Your task to perform on an android device: change the clock display to analog Image 0: 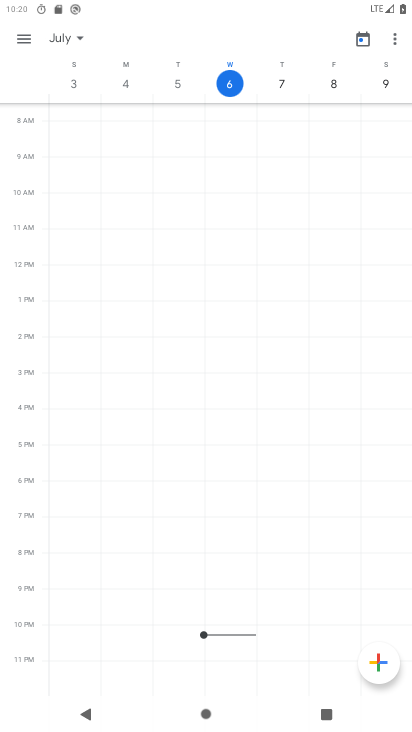
Step 0: press home button
Your task to perform on an android device: change the clock display to analog Image 1: 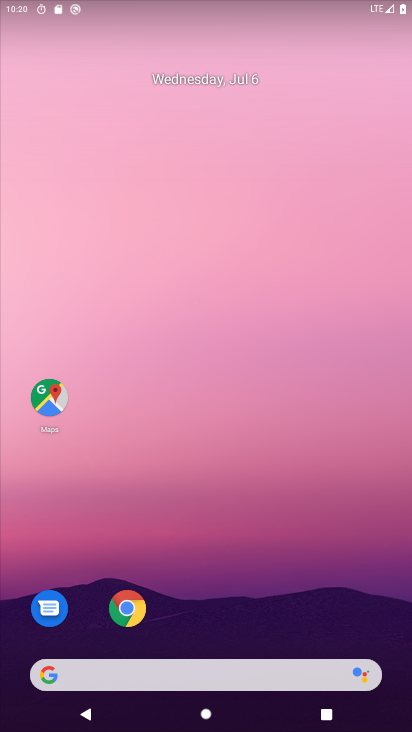
Step 1: drag from (206, 629) to (161, 2)
Your task to perform on an android device: change the clock display to analog Image 2: 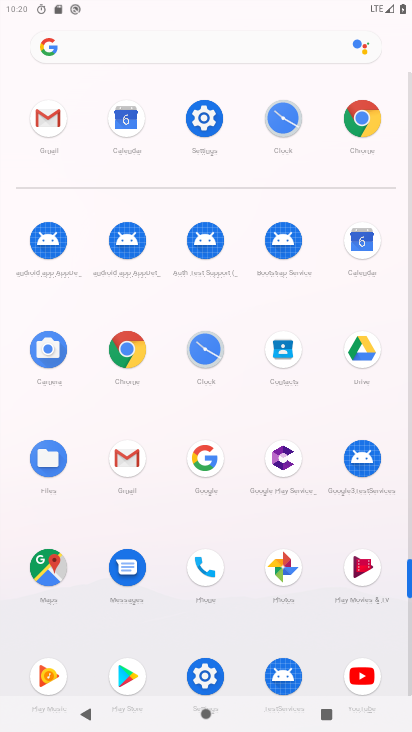
Step 2: click (193, 351)
Your task to perform on an android device: change the clock display to analog Image 3: 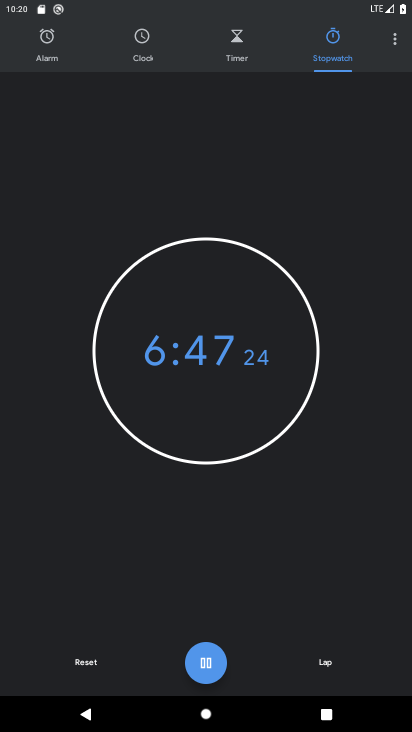
Step 3: click (85, 656)
Your task to perform on an android device: change the clock display to analog Image 4: 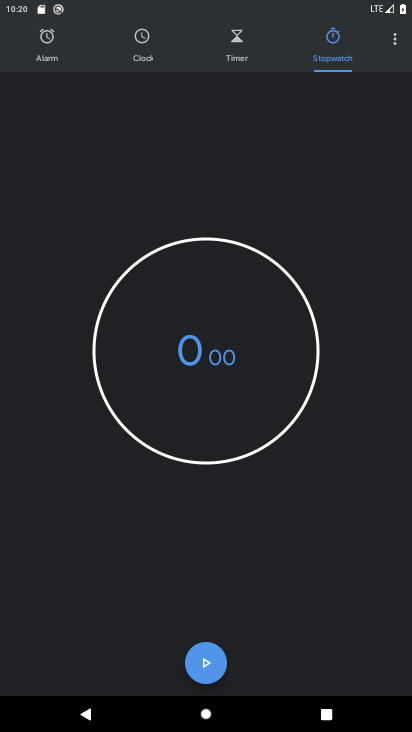
Step 4: click (392, 45)
Your task to perform on an android device: change the clock display to analog Image 5: 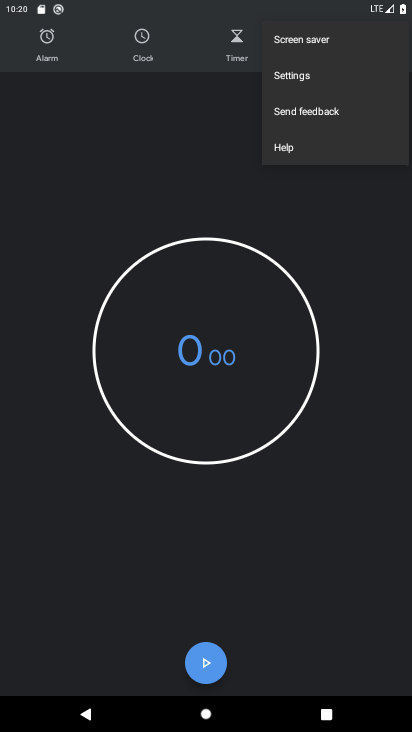
Step 5: click (296, 79)
Your task to perform on an android device: change the clock display to analog Image 6: 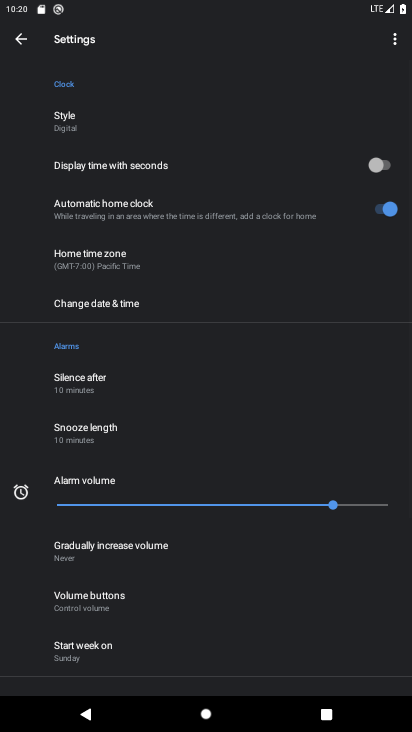
Step 6: click (78, 120)
Your task to perform on an android device: change the clock display to analog Image 7: 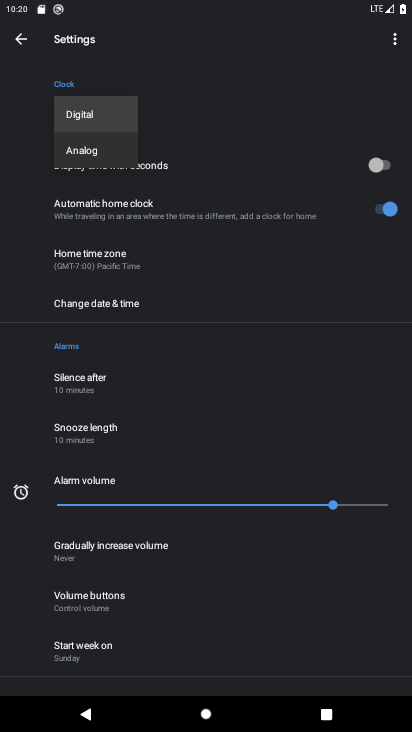
Step 7: click (99, 154)
Your task to perform on an android device: change the clock display to analog Image 8: 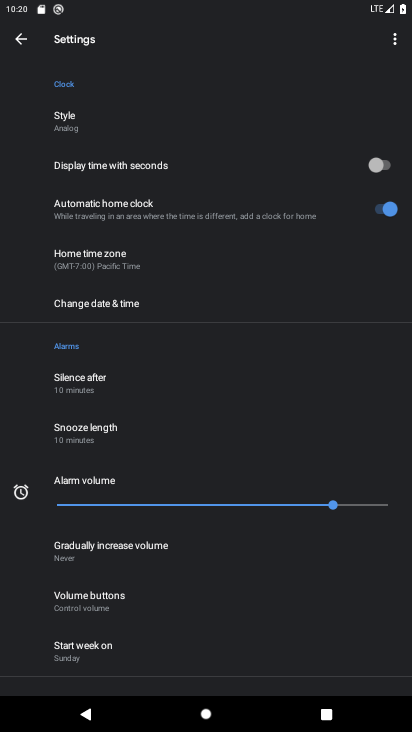
Step 8: task complete